Your task to perform on an android device: turn off translation in the chrome app Image 0: 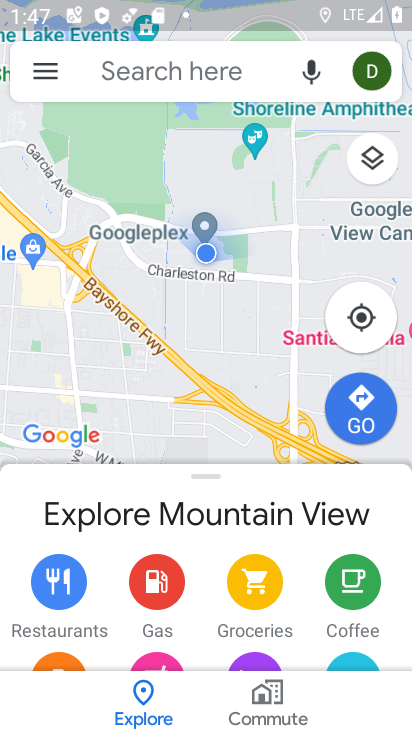
Step 0: press home button
Your task to perform on an android device: turn off translation in the chrome app Image 1: 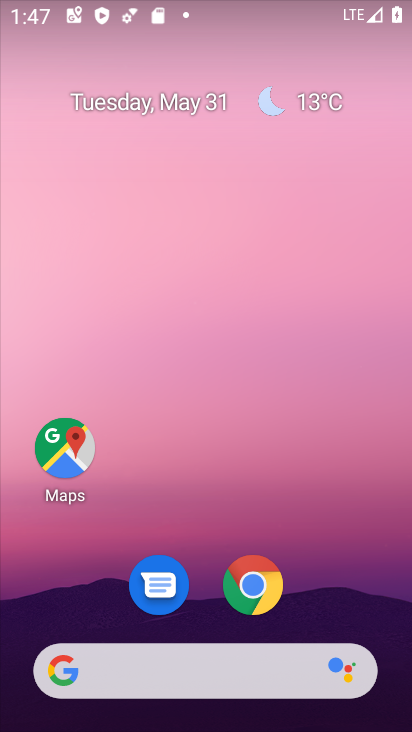
Step 1: click (268, 581)
Your task to perform on an android device: turn off translation in the chrome app Image 2: 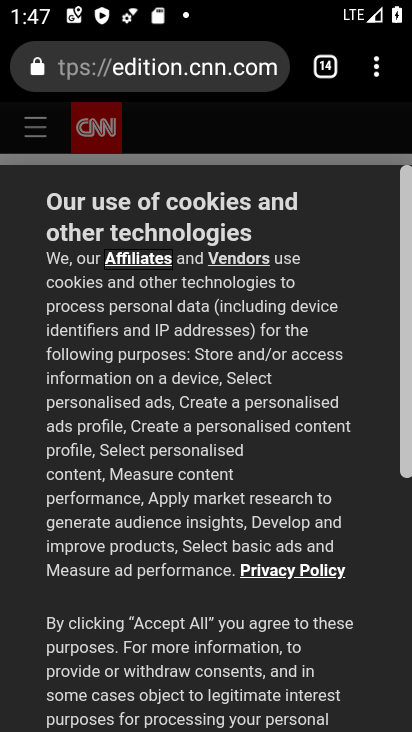
Step 2: click (376, 63)
Your task to perform on an android device: turn off translation in the chrome app Image 3: 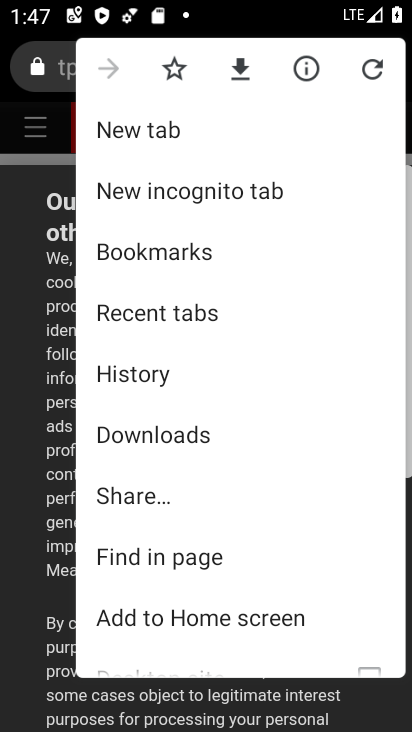
Step 3: drag from (215, 497) to (248, 283)
Your task to perform on an android device: turn off translation in the chrome app Image 4: 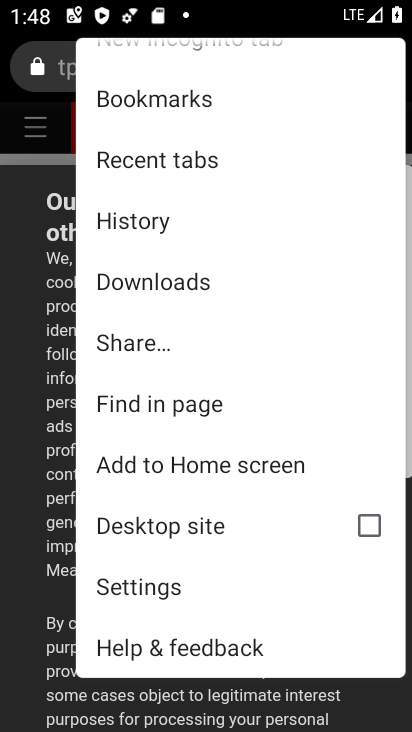
Step 4: click (201, 590)
Your task to perform on an android device: turn off translation in the chrome app Image 5: 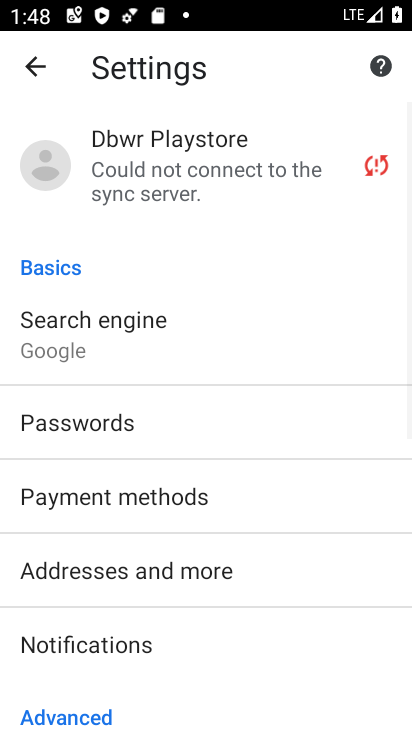
Step 5: drag from (209, 575) to (249, 238)
Your task to perform on an android device: turn off translation in the chrome app Image 6: 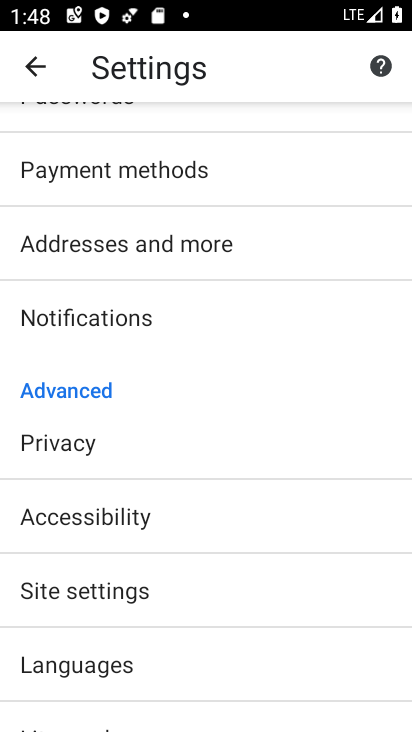
Step 6: click (217, 667)
Your task to perform on an android device: turn off translation in the chrome app Image 7: 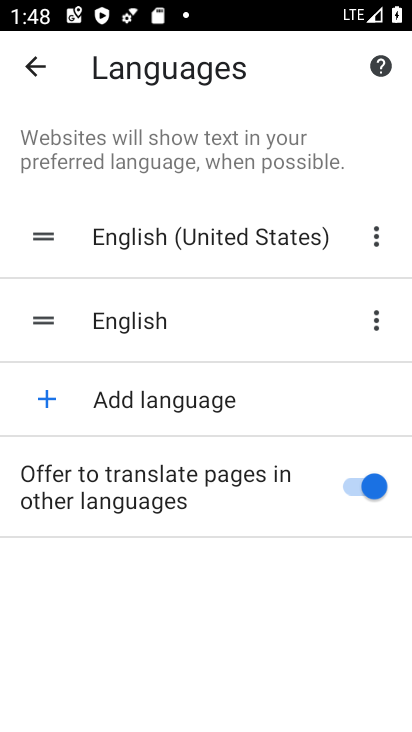
Step 7: click (351, 479)
Your task to perform on an android device: turn off translation in the chrome app Image 8: 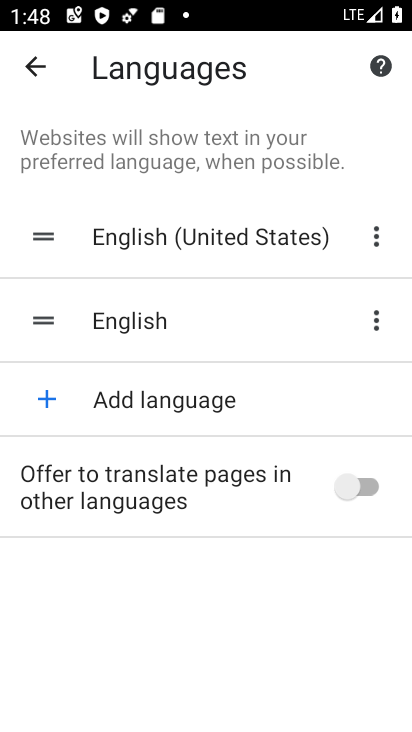
Step 8: task complete